Your task to perform on an android device: Search for "beats solo 3" on walmart, select the first entry, and add it to the cart. Image 0: 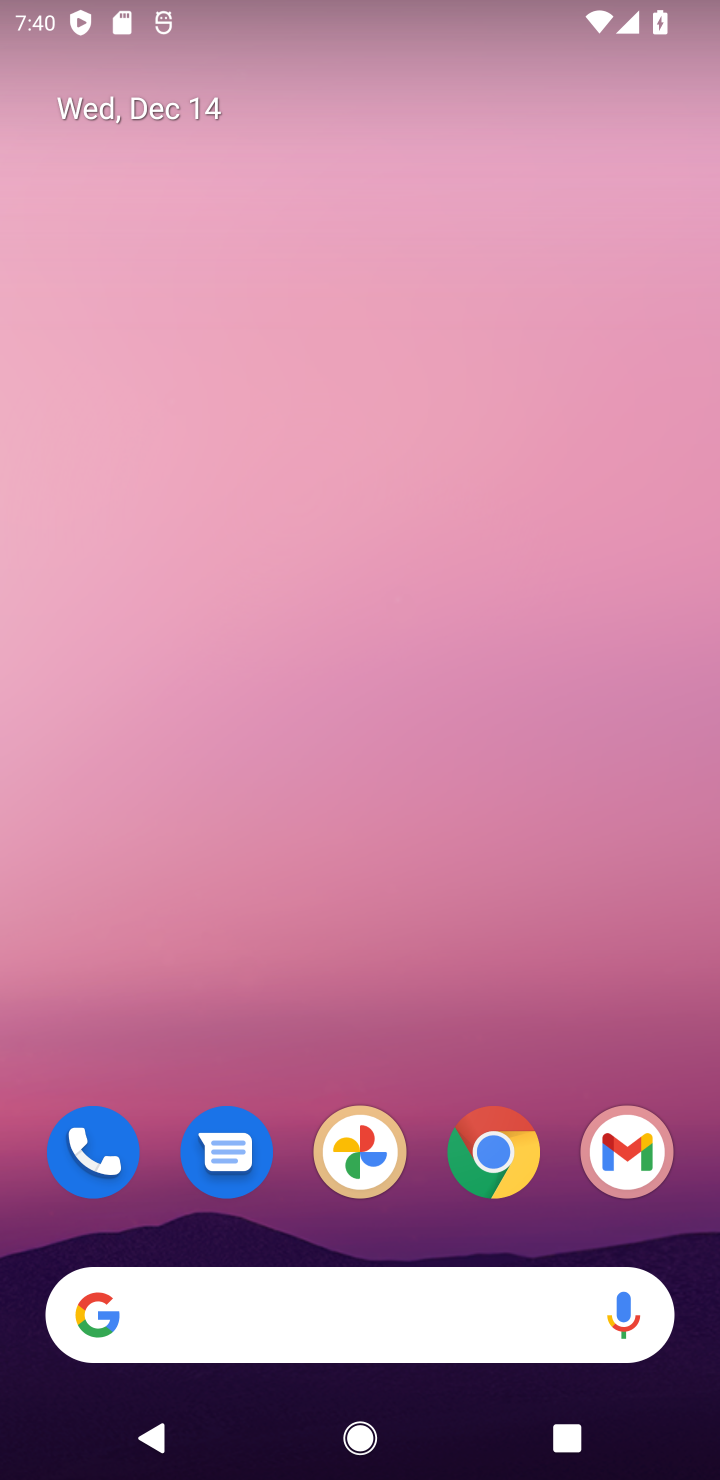
Step 0: click (481, 1174)
Your task to perform on an android device: Search for "beats solo 3" on walmart, select the first entry, and add it to the cart. Image 1: 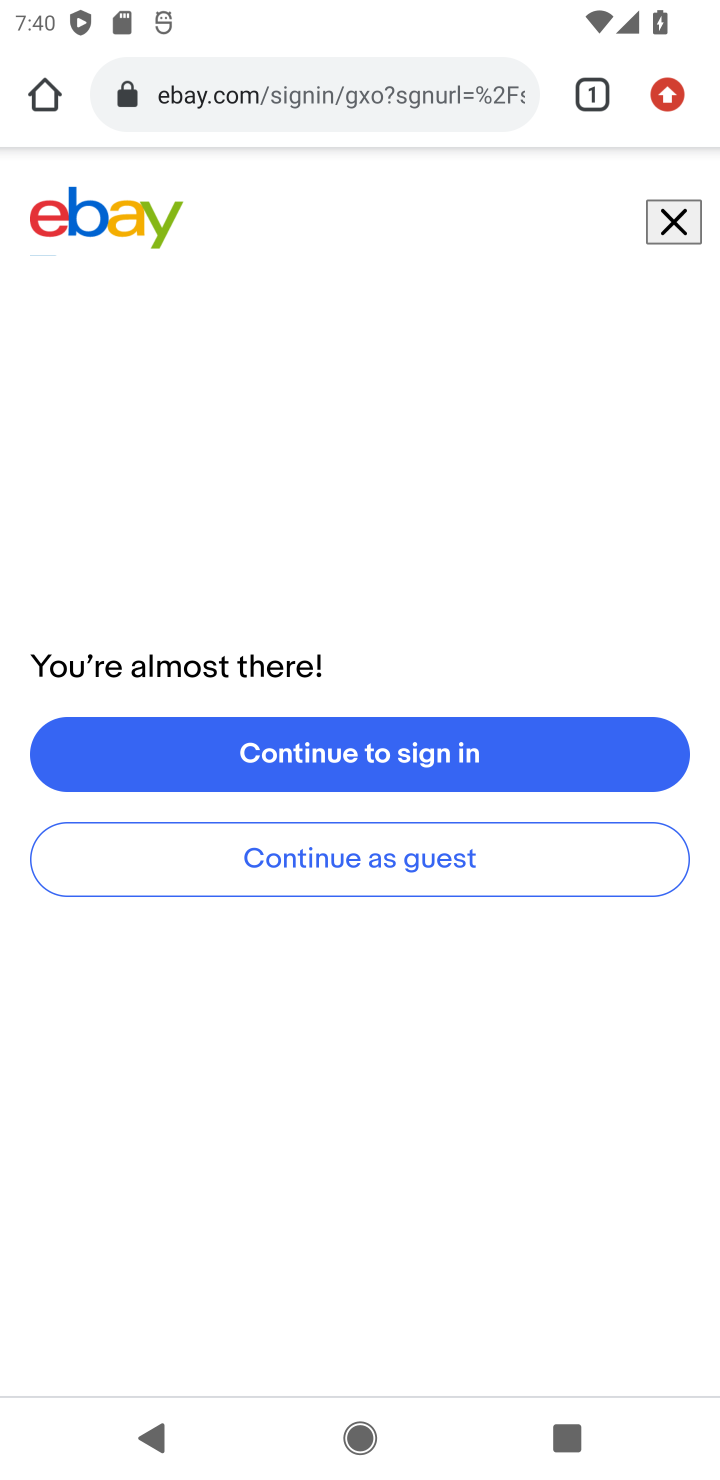
Step 1: click (273, 82)
Your task to perform on an android device: Search for "beats solo 3" on walmart, select the first entry, and add it to the cart. Image 2: 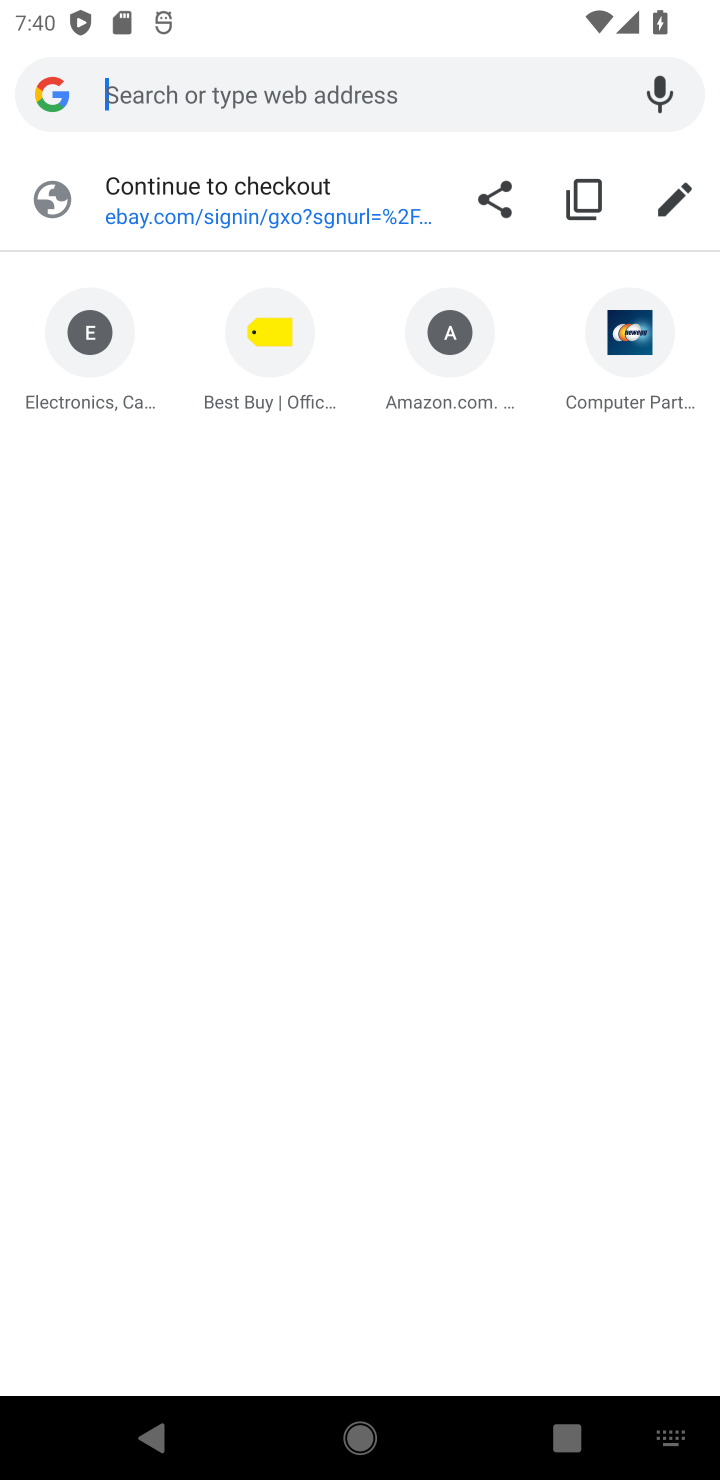
Step 2: type "walmart.com"
Your task to perform on an android device: Search for "beats solo 3" on walmart, select the first entry, and add it to the cart. Image 3: 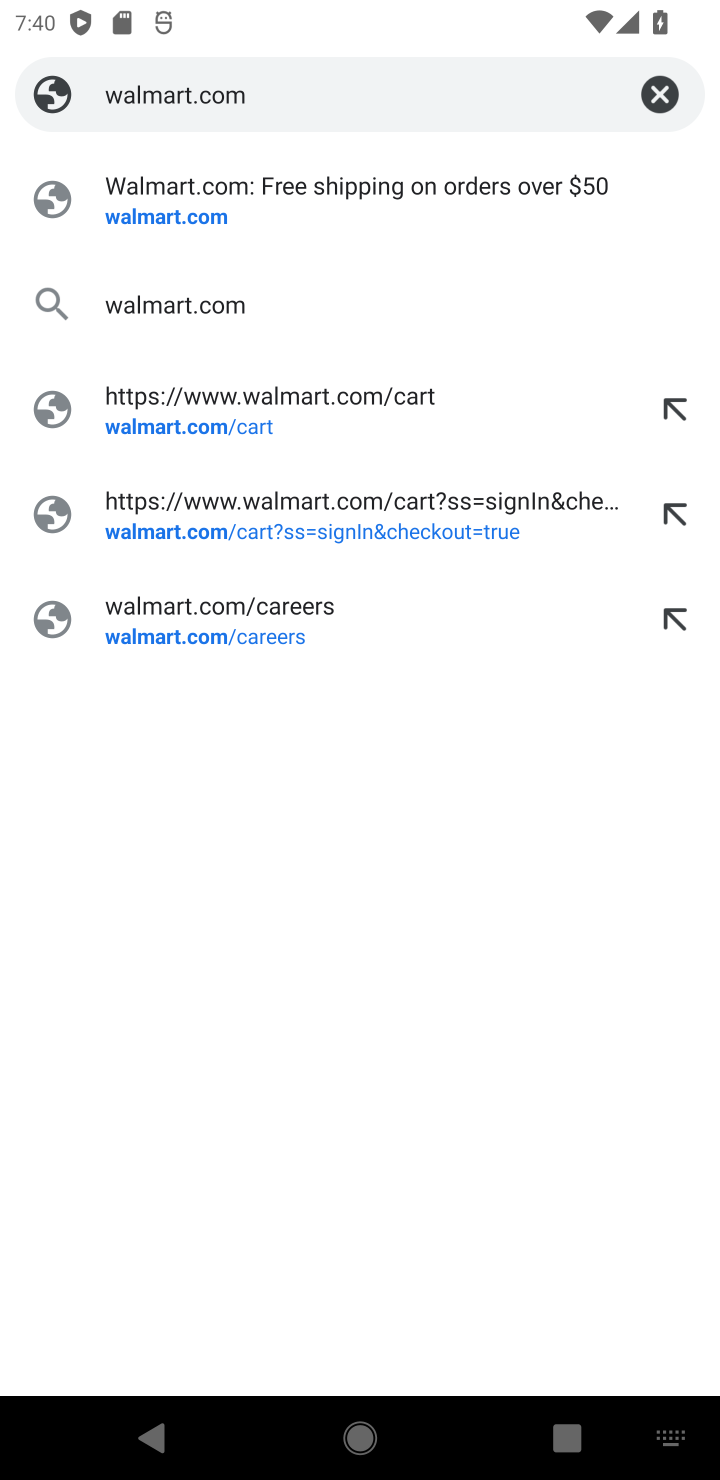
Step 3: click (205, 229)
Your task to perform on an android device: Search for "beats solo 3" on walmart, select the first entry, and add it to the cart. Image 4: 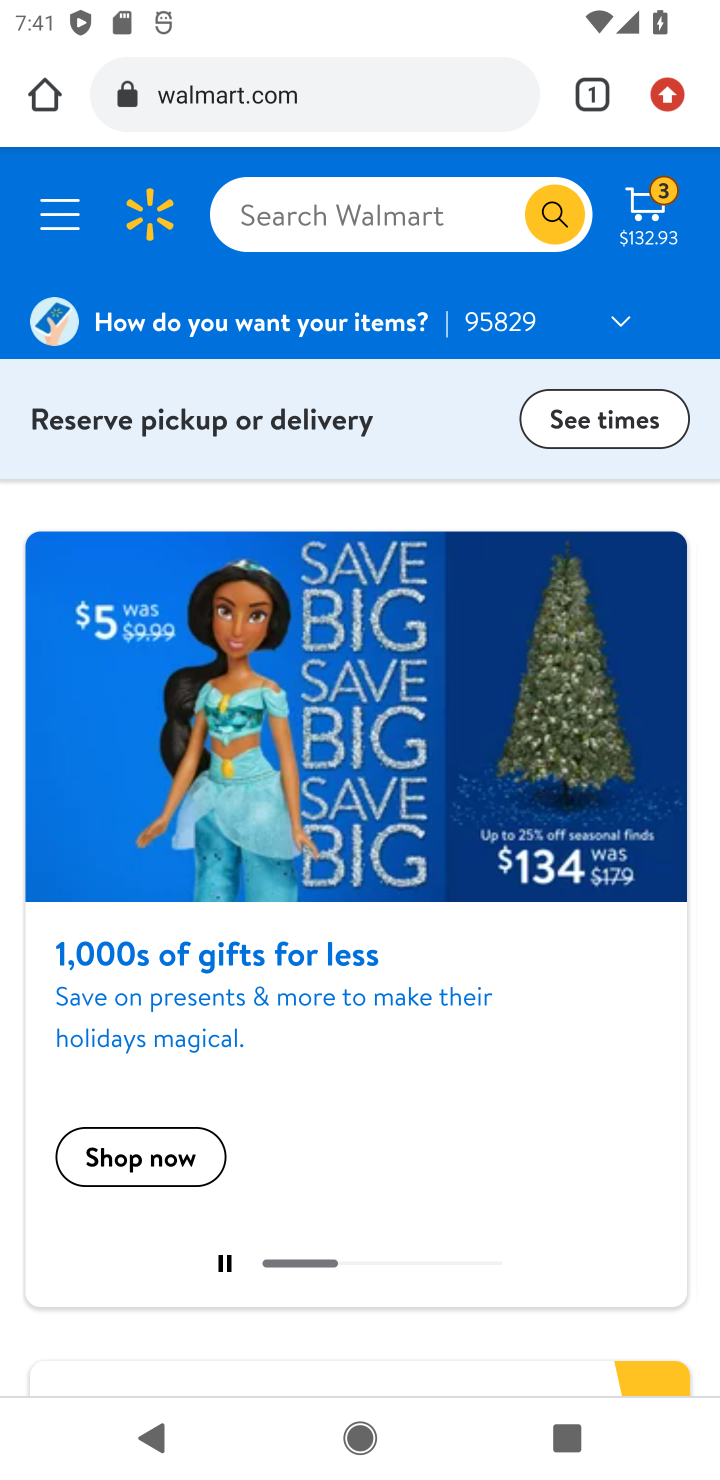
Step 4: click (332, 217)
Your task to perform on an android device: Search for "beats solo 3" on walmart, select the first entry, and add it to the cart. Image 5: 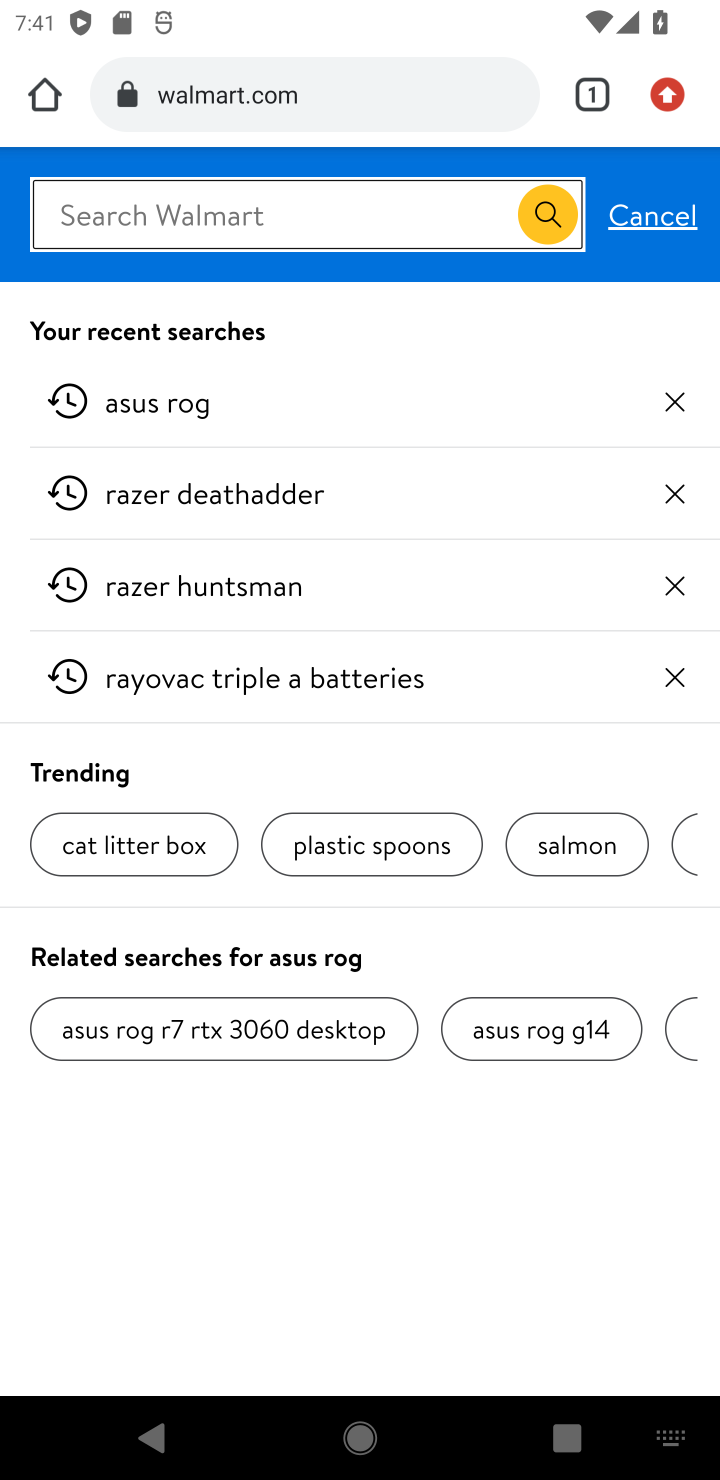
Step 5: type "beats solo 3"
Your task to perform on an android device: Search for "beats solo 3" on walmart, select the first entry, and add it to the cart. Image 6: 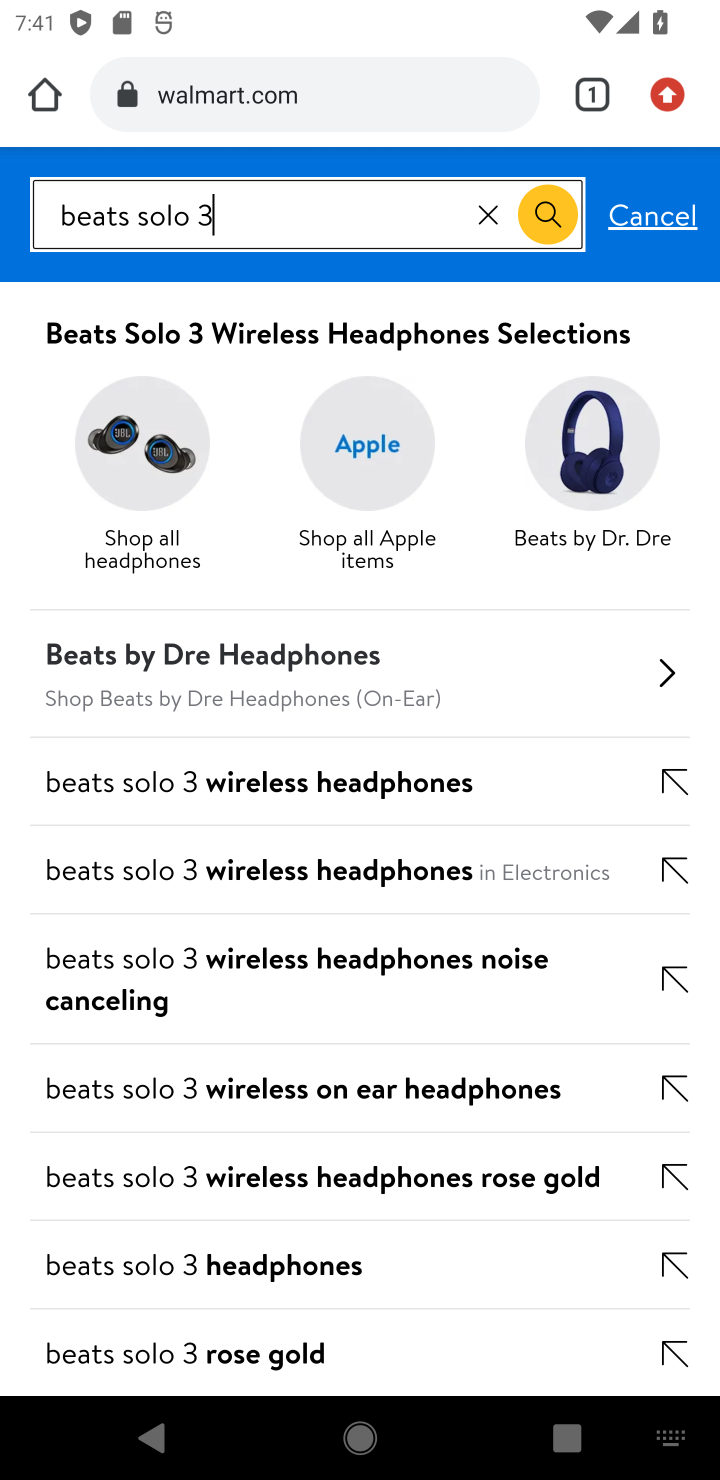
Step 6: click (550, 218)
Your task to perform on an android device: Search for "beats solo 3" on walmart, select the first entry, and add it to the cart. Image 7: 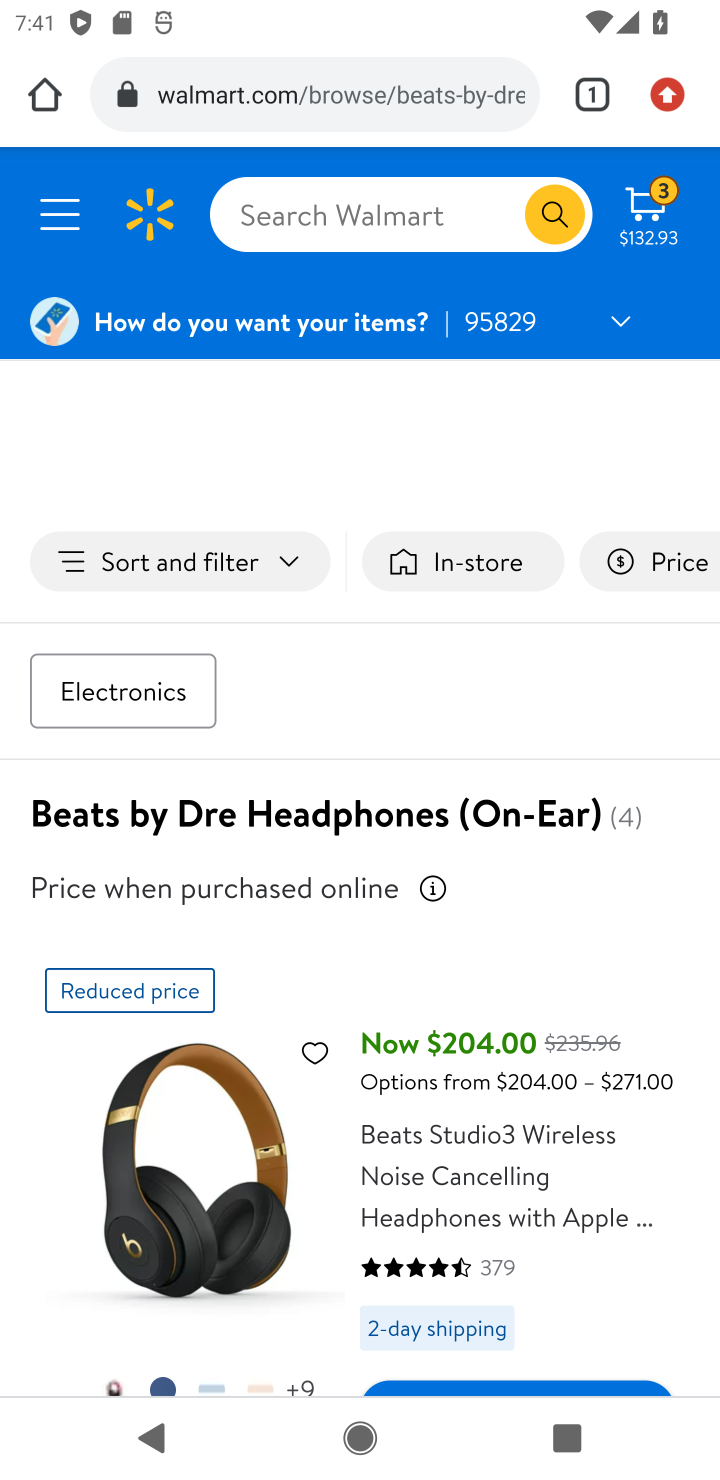
Step 7: task complete